Your task to perform on an android device: turn off airplane mode Image 0: 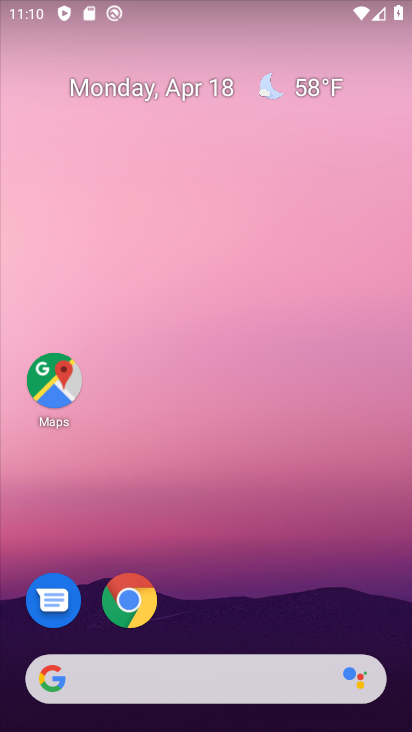
Step 0: drag from (326, 11) to (303, 631)
Your task to perform on an android device: turn off airplane mode Image 1: 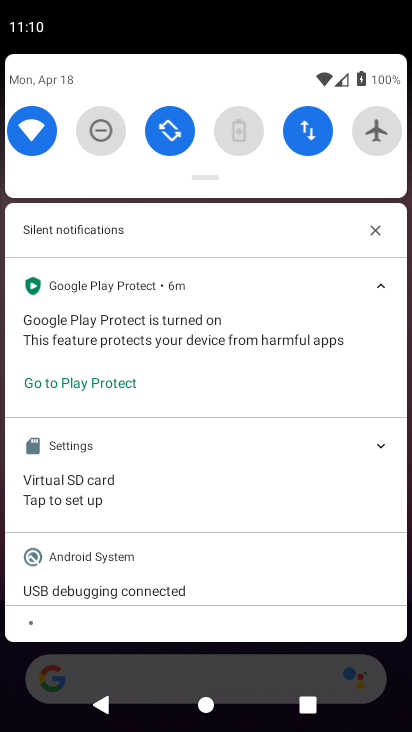
Step 1: task complete